Your task to perform on an android device: Go to internet settings Image 0: 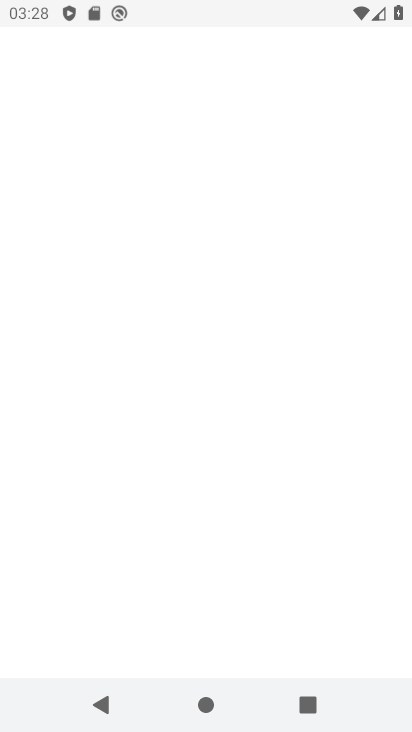
Step 0: press home button
Your task to perform on an android device: Go to internet settings Image 1: 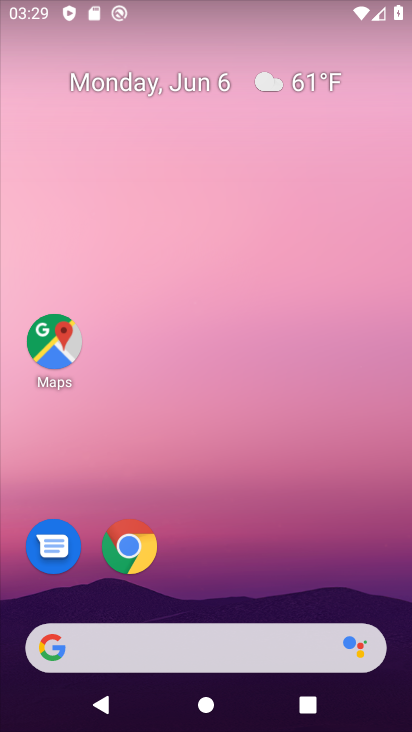
Step 1: drag from (219, 606) to (289, 6)
Your task to perform on an android device: Go to internet settings Image 2: 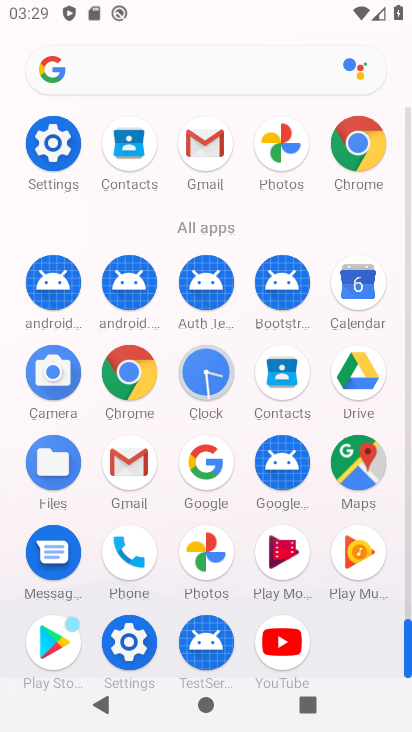
Step 2: click (63, 153)
Your task to perform on an android device: Go to internet settings Image 3: 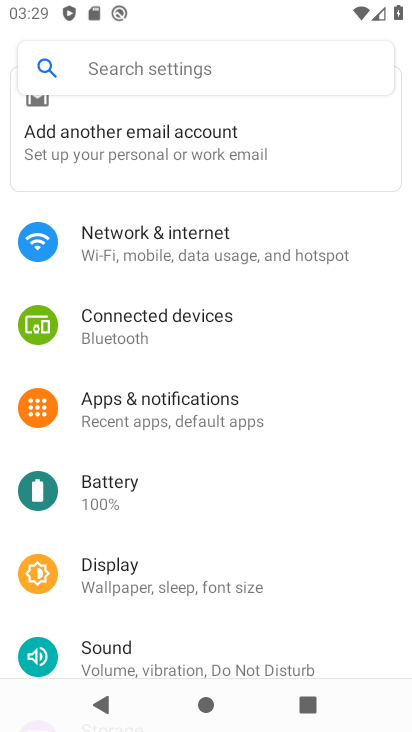
Step 3: click (128, 249)
Your task to perform on an android device: Go to internet settings Image 4: 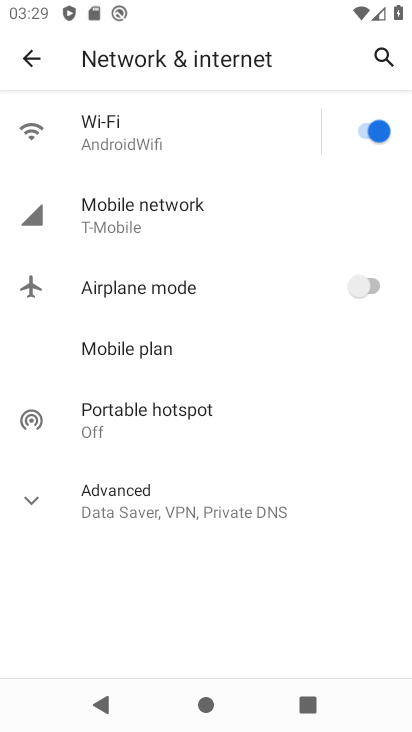
Step 4: task complete